Your task to perform on an android device: create a new album in the google photos Image 0: 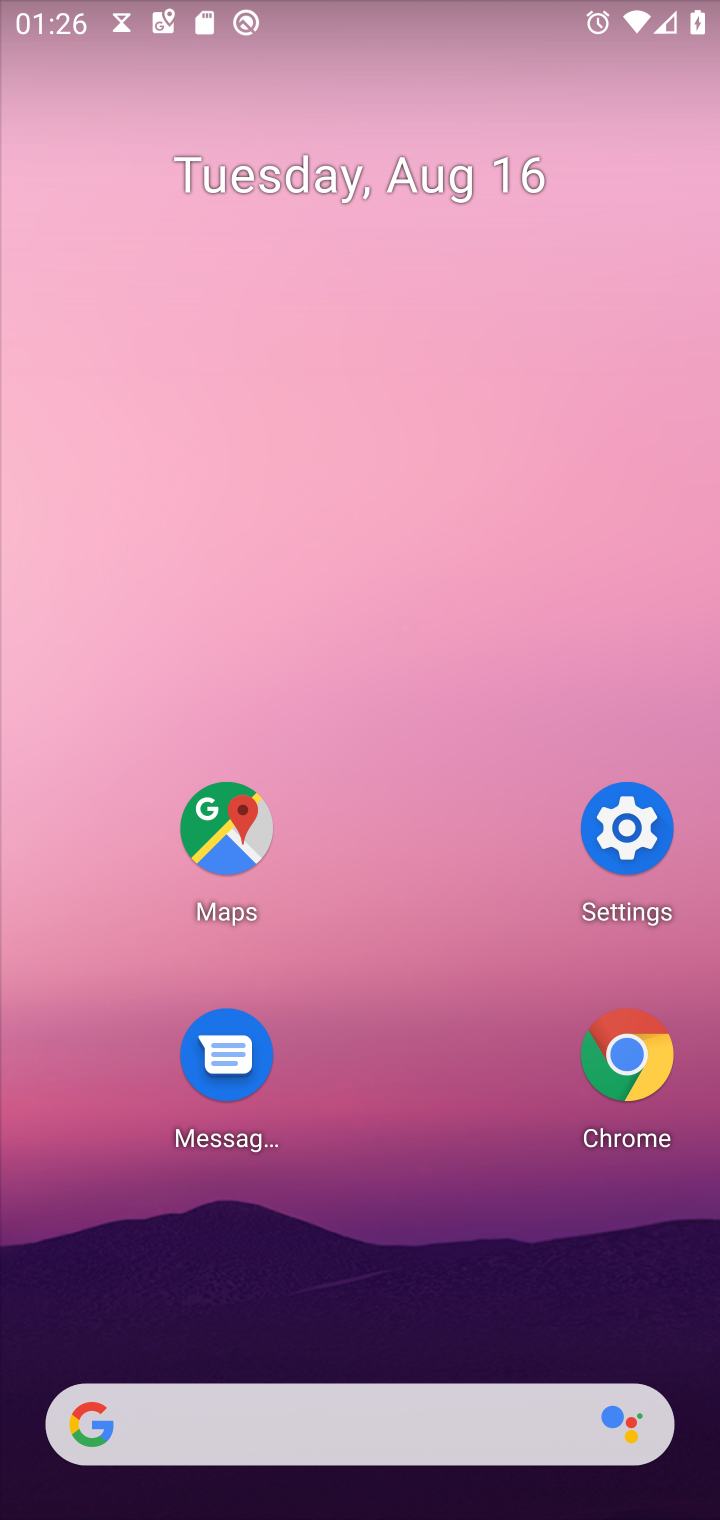
Step 0: press home button
Your task to perform on an android device: create a new album in the google photos Image 1: 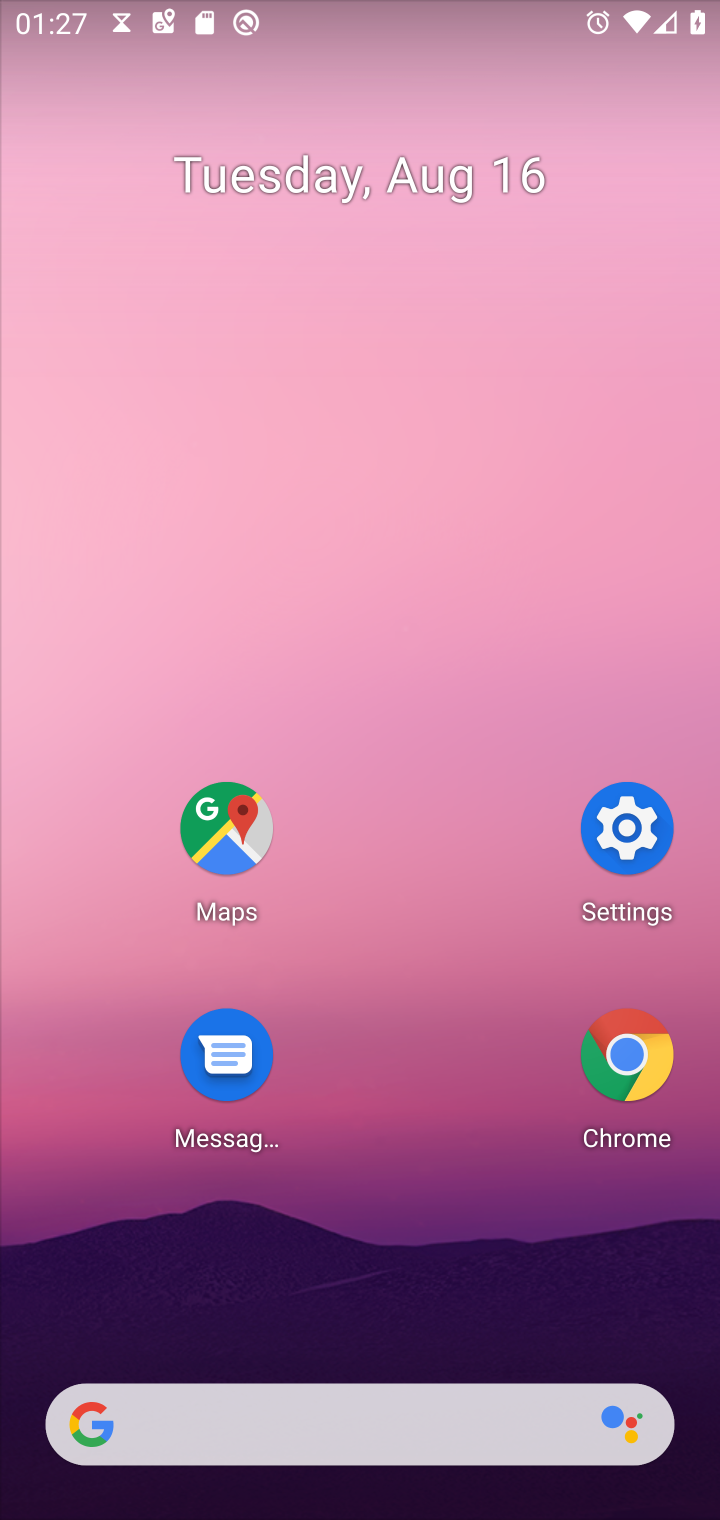
Step 1: drag from (342, 1426) to (608, 287)
Your task to perform on an android device: create a new album in the google photos Image 2: 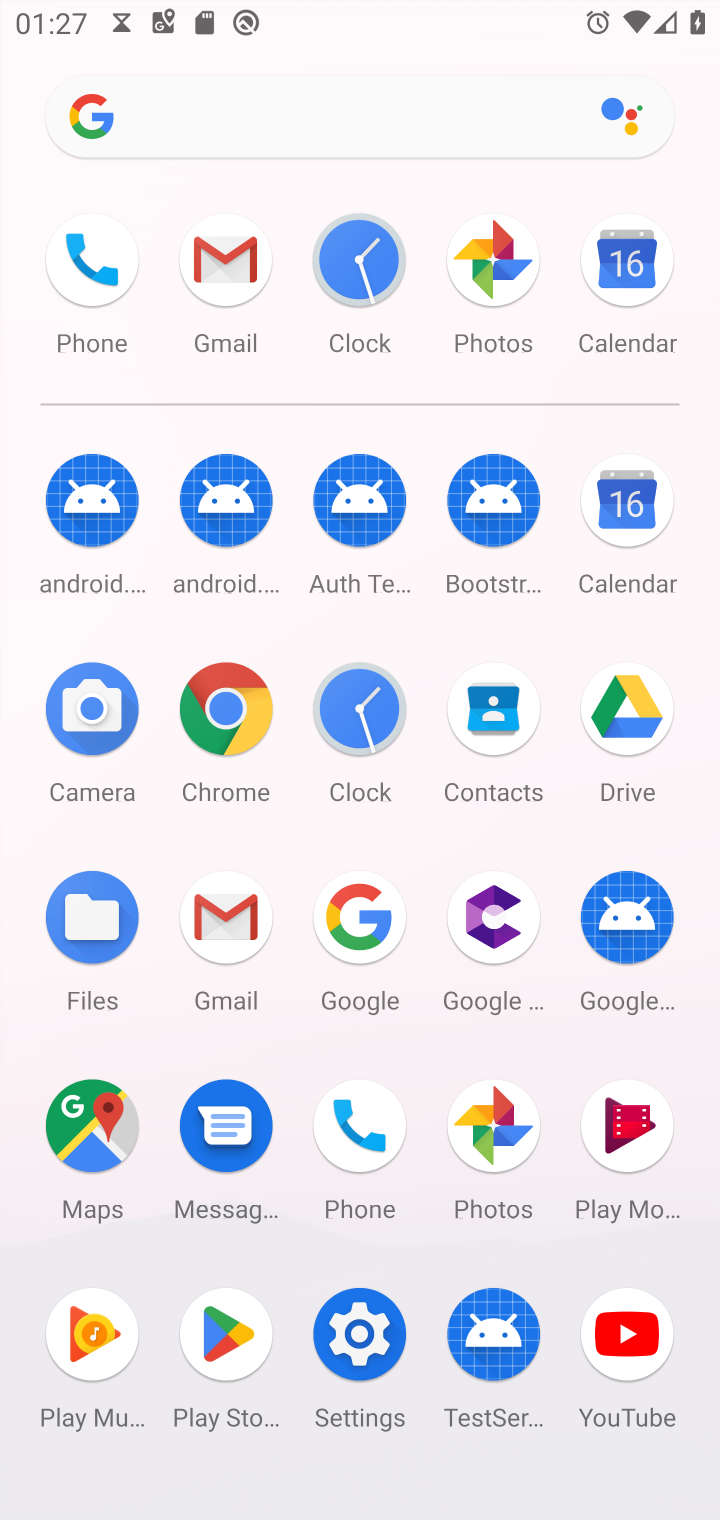
Step 2: click (485, 1136)
Your task to perform on an android device: create a new album in the google photos Image 3: 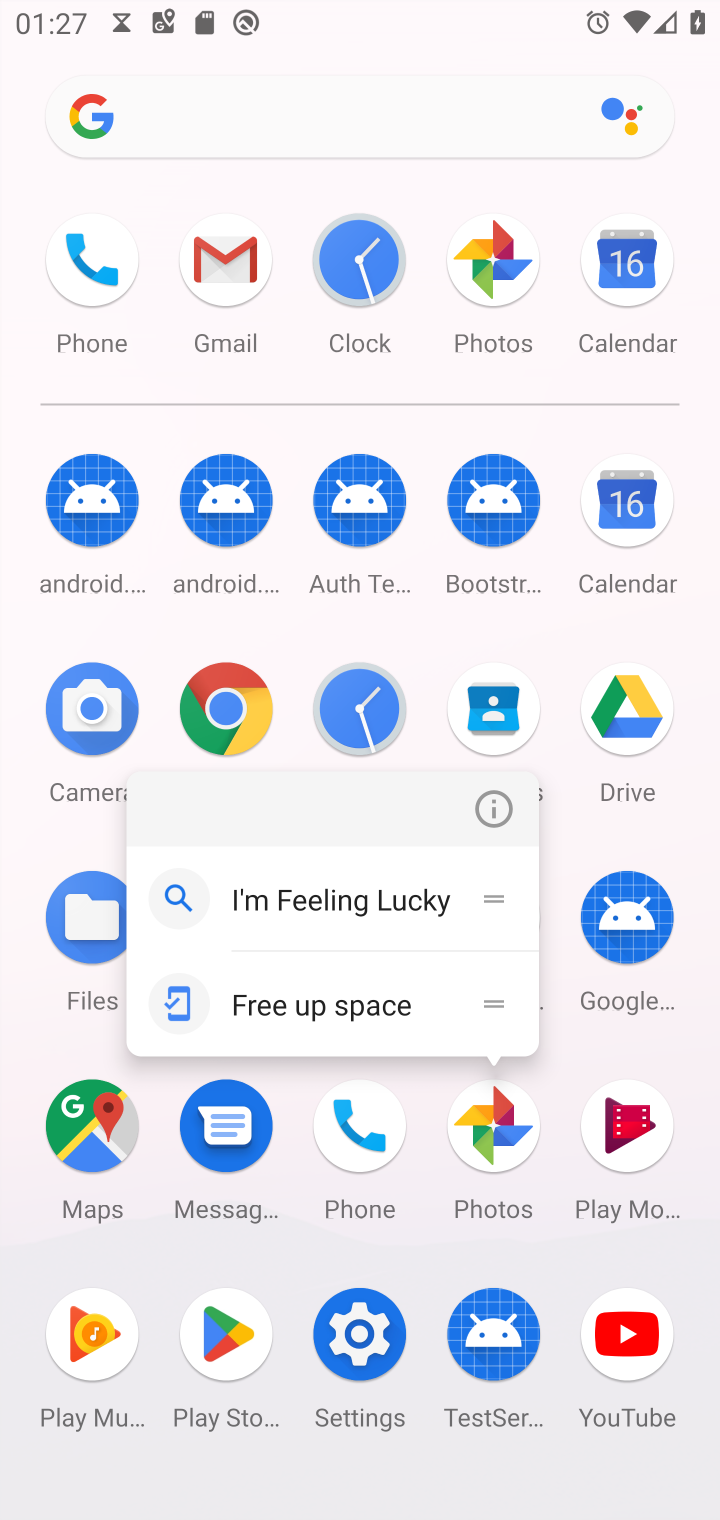
Step 3: click (485, 1136)
Your task to perform on an android device: create a new album in the google photos Image 4: 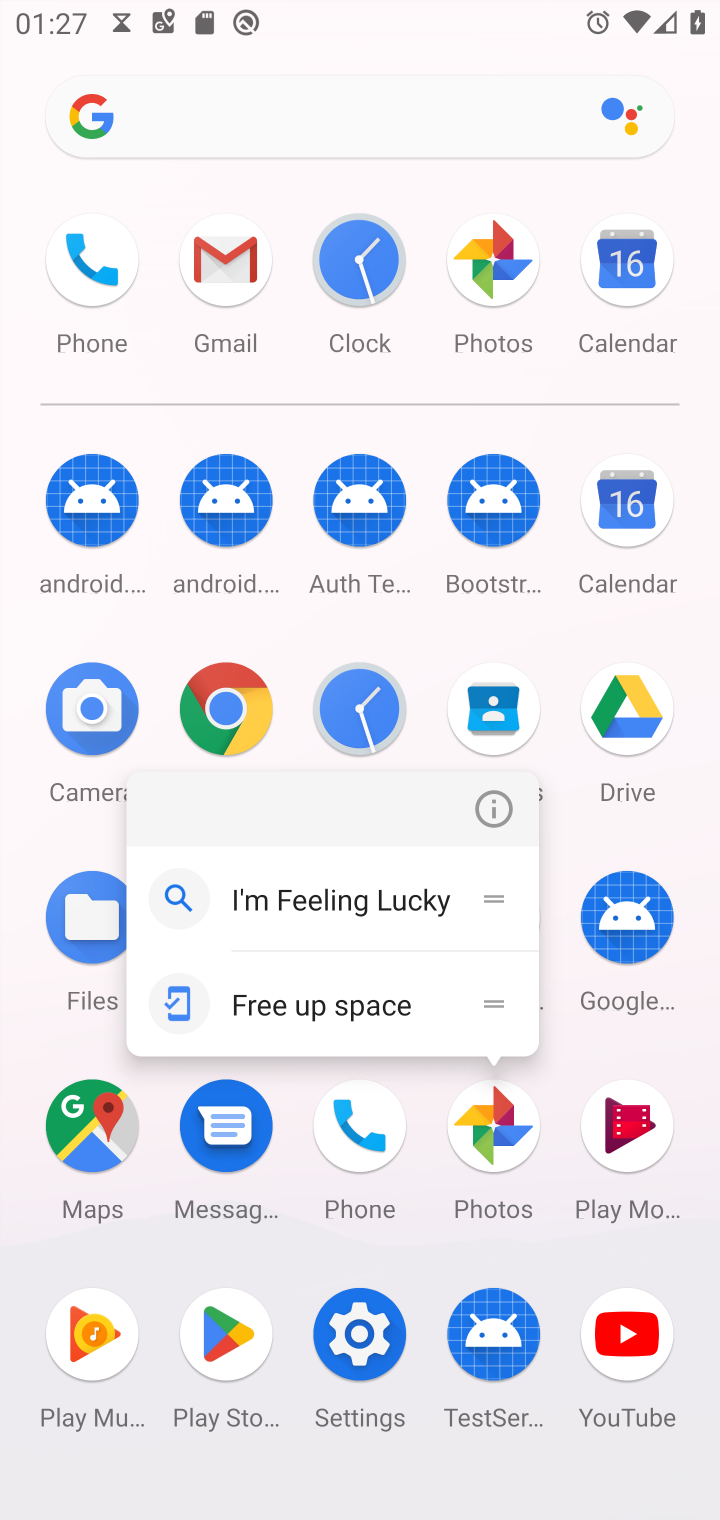
Step 4: click (485, 1139)
Your task to perform on an android device: create a new album in the google photos Image 5: 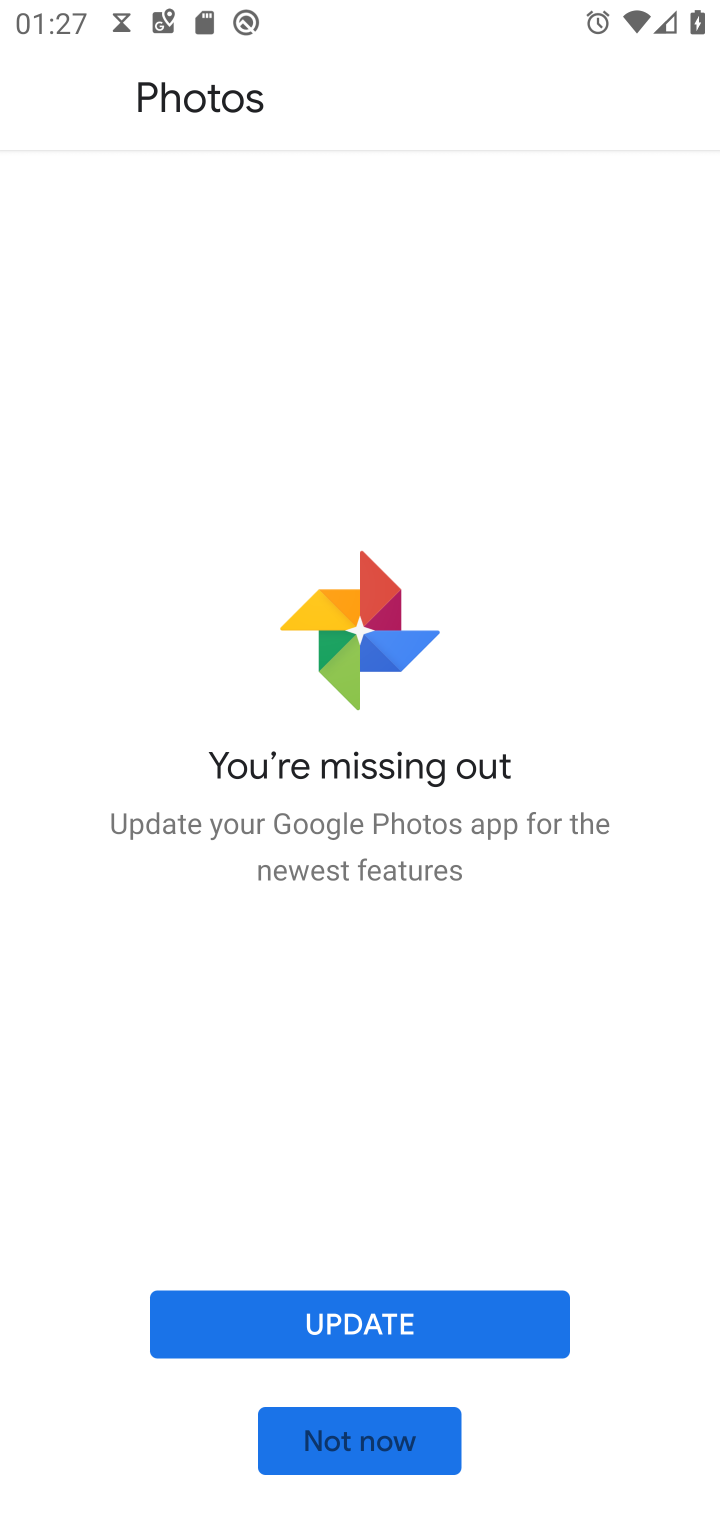
Step 5: click (367, 1316)
Your task to perform on an android device: create a new album in the google photos Image 6: 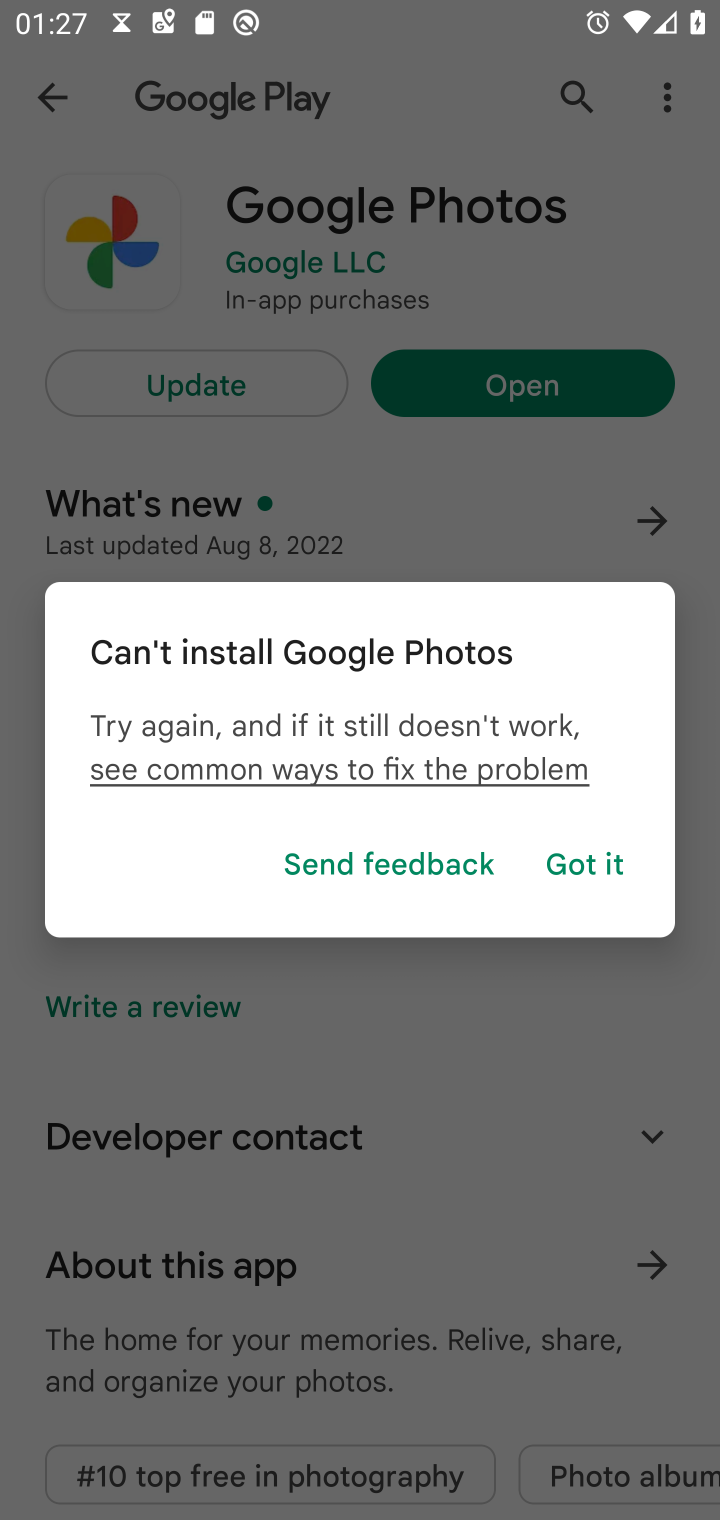
Step 6: click (582, 861)
Your task to perform on an android device: create a new album in the google photos Image 7: 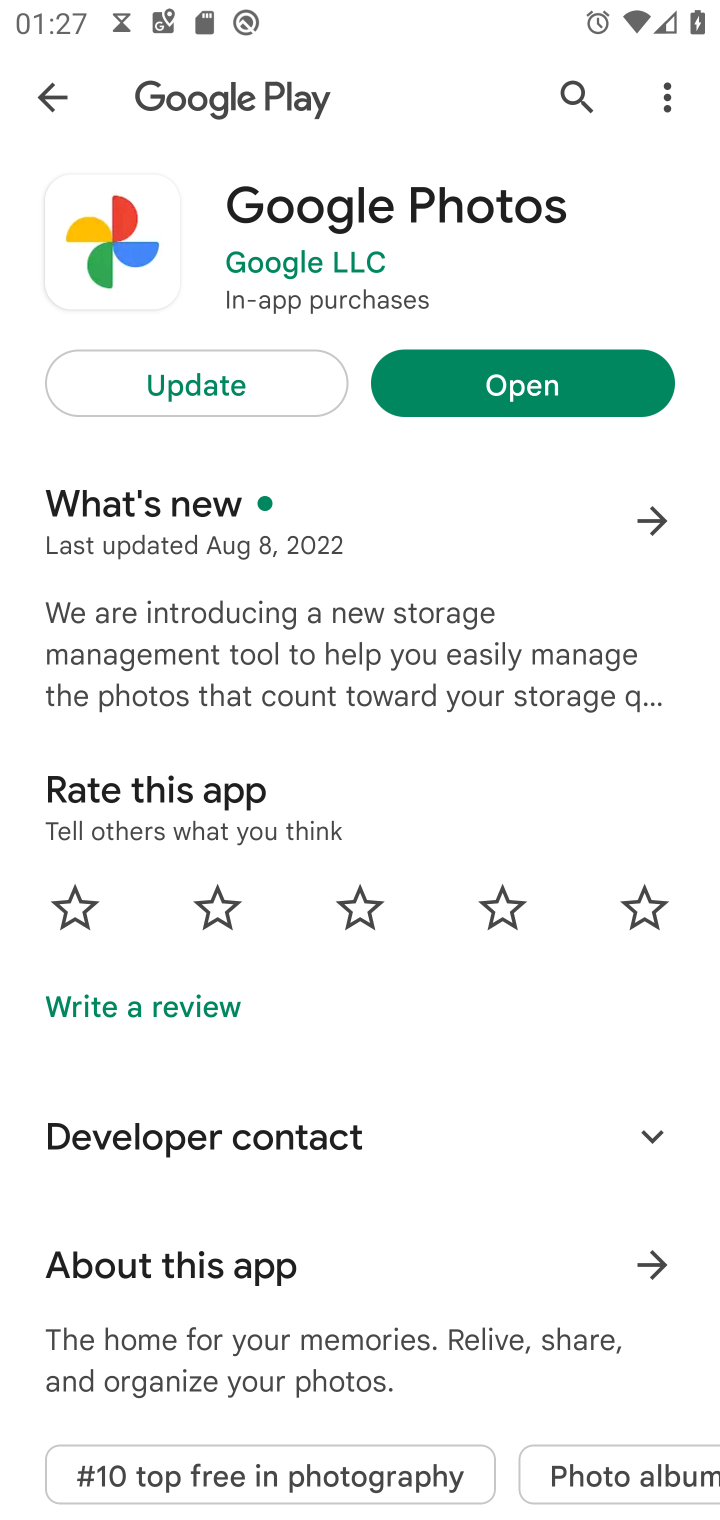
Step 7: task complete